Your task to perform on an android device: When is my next appointment? Image 0: 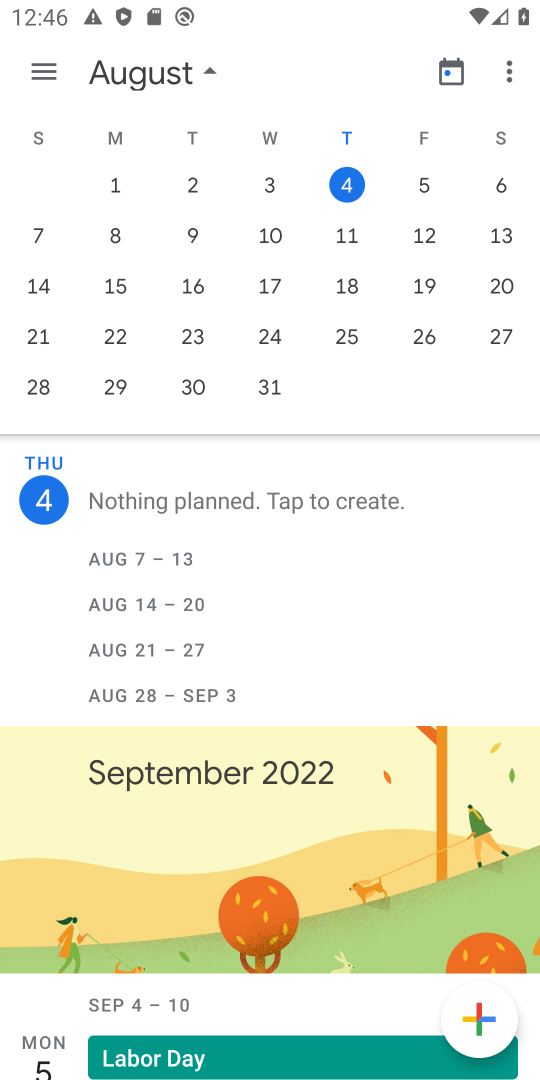
Step 0: press home button
Your task to perform on an android device: When is my next appointment? Image 1: 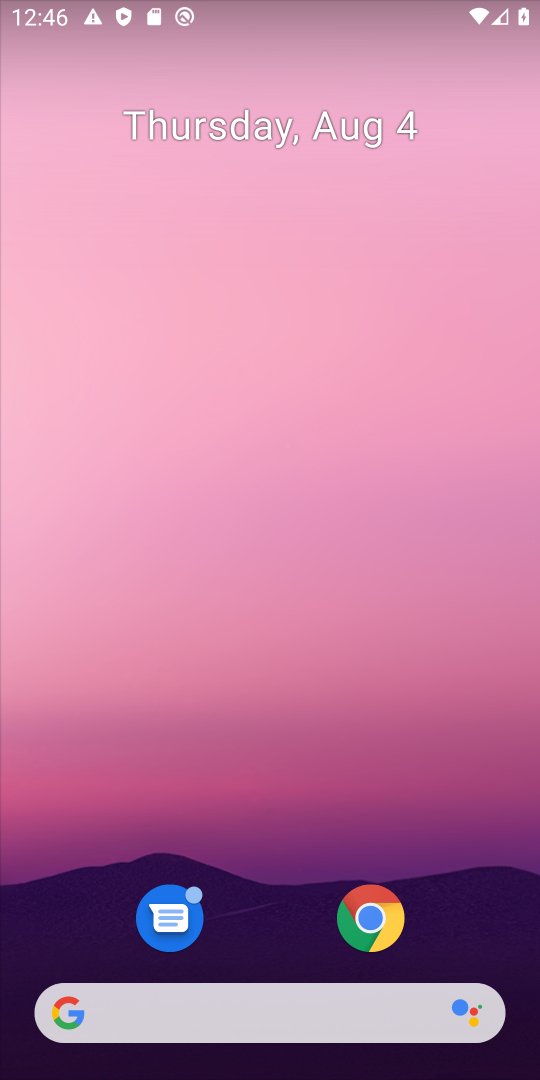
Step 1: drag from (290, 883) to (238, 252)
Your task to perform on an android device: When is my next appointment? Image 2: 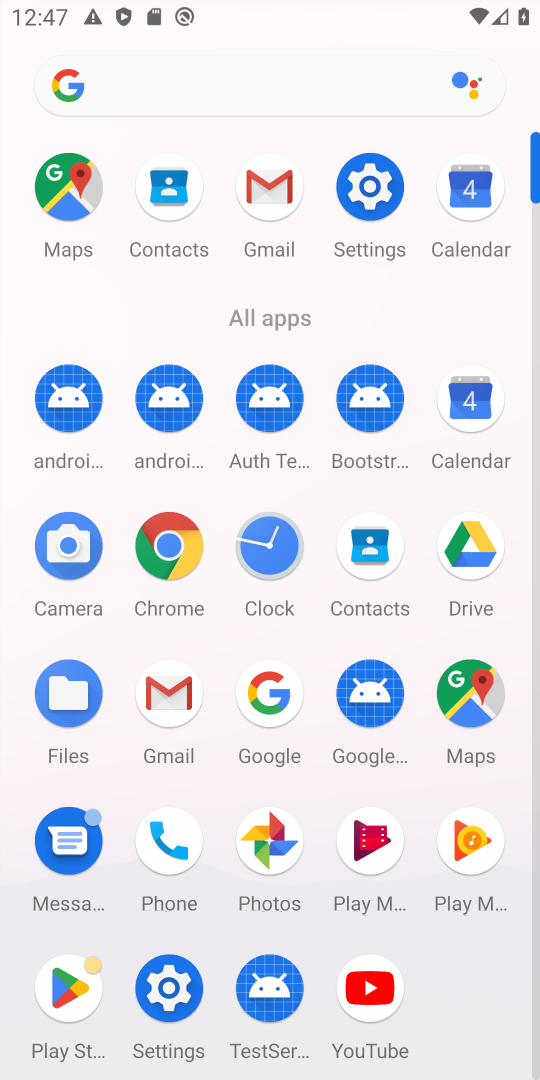
Step 2: click (484, 201)
Your task to perform on an android device: When is my next appointment? Image 3: 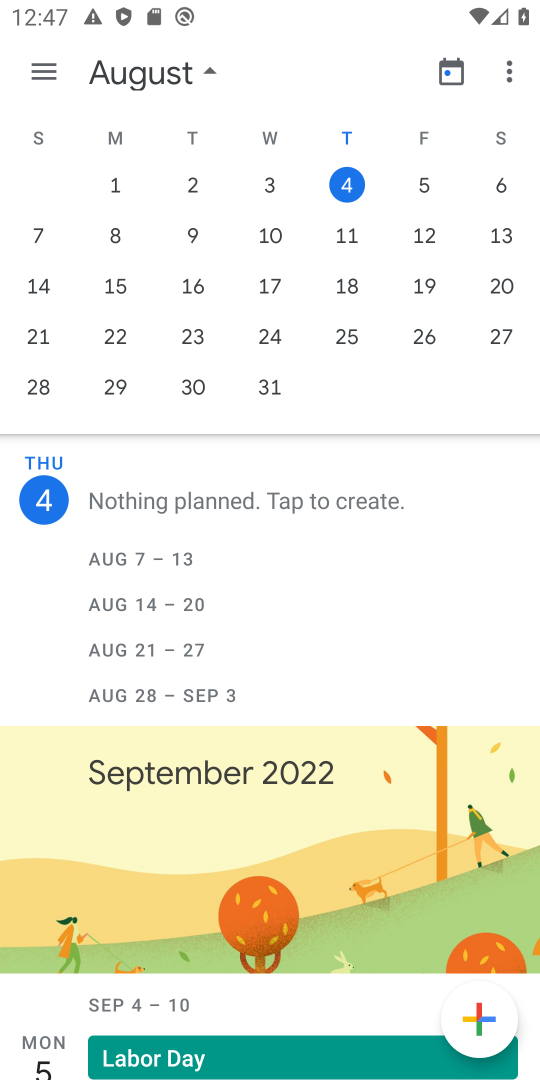
Step 3: click (412, 193)
Your task to perform on an android device: When is my next appointment? Image 4: 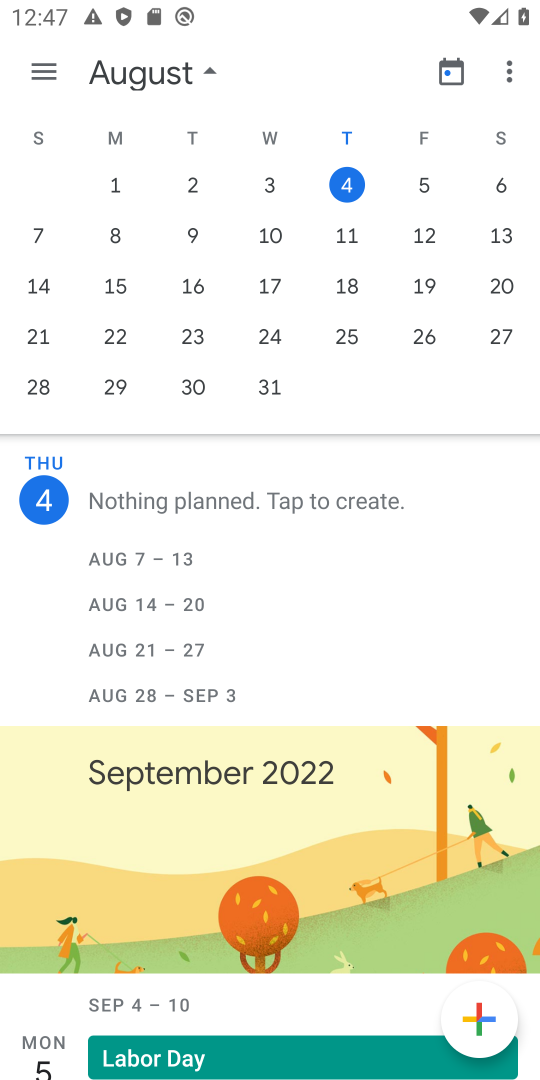
Step 4: click (498, 194)
Your task to perform on an android device: When is my next appointment? Image 5: 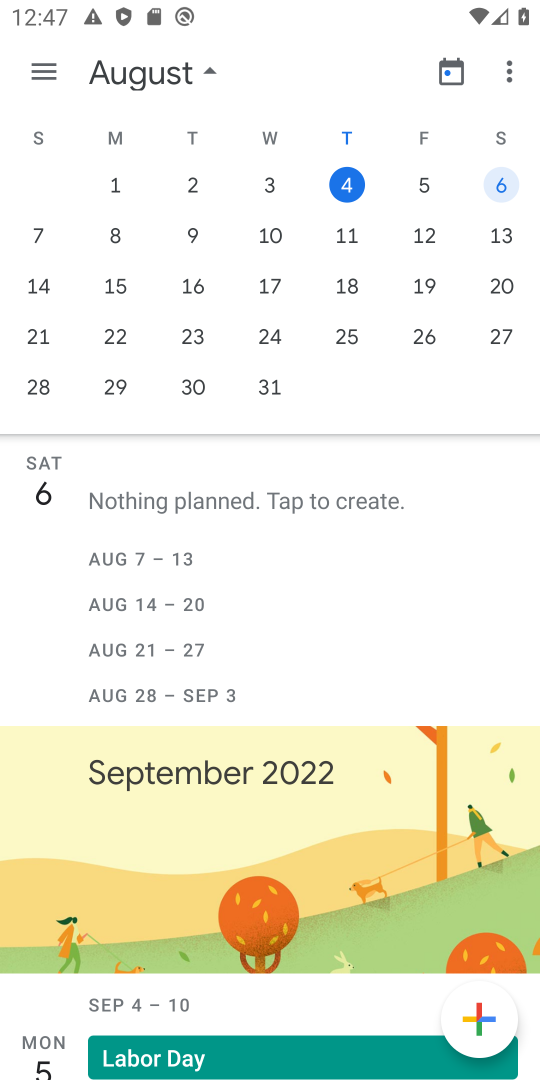
Step 5: click (486, 263)
Your task to perform on an android device: When is my next appointment? Image 6: 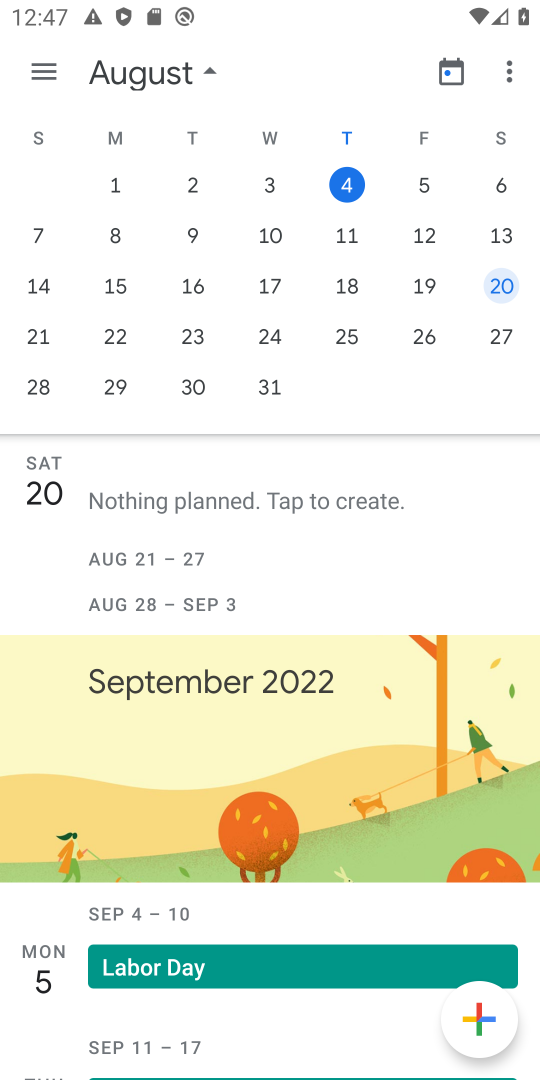
Step 6: task complete